Your task to perform on an android device: turn off picture-in-picture Image 0: 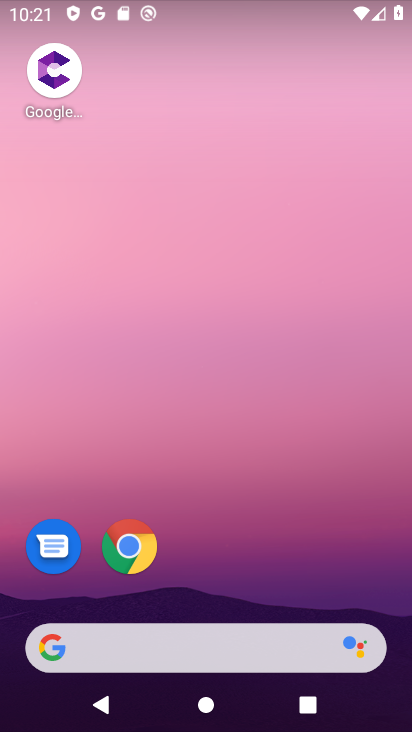
Step 0: drag from (281, 561) to (184, 49)
Your task to perform on an android device: turn off picture-in-picture Image 1: 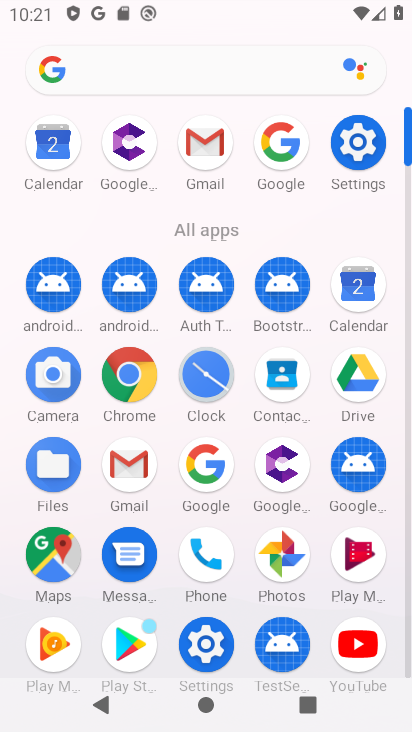
Step 1: drag from (23, 515) to (0, 316)
Your task to perform on an android device: turn off picture-in-picture Image 2: 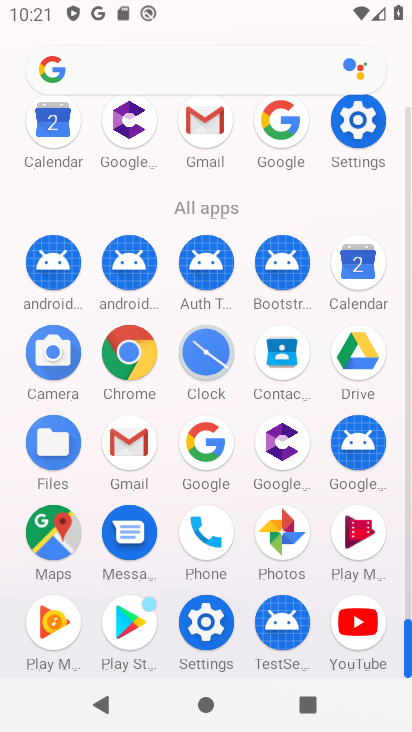
Step 2: click (207, 620)
Your task to perform on an android device: turn off picture-in-picture Image 3: 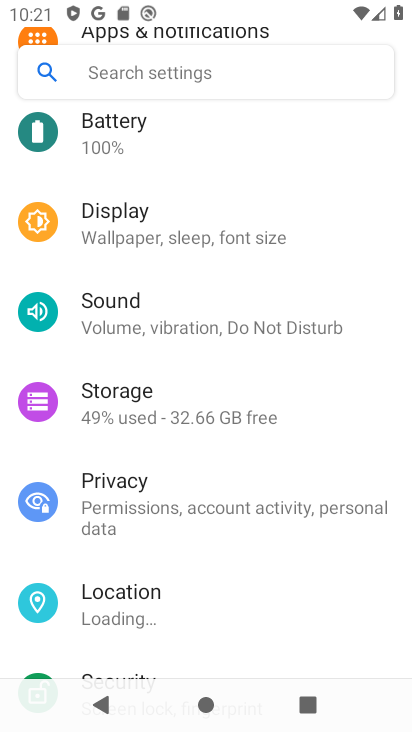
Step 3: drag from (261, 191) to (254, 585)
Your task to perform on an android device: turn off picture-in-picture Image 4: 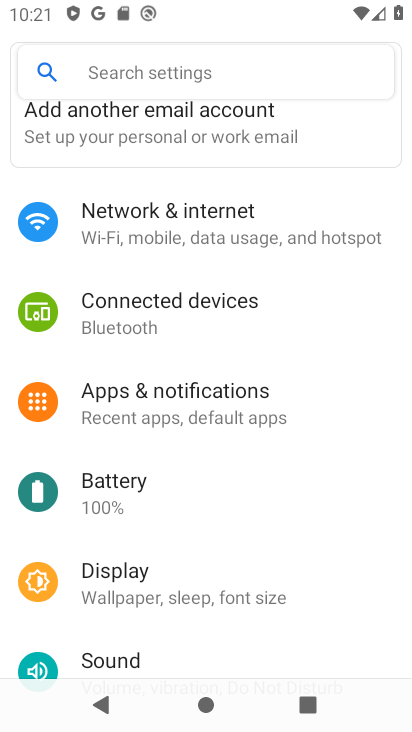
Step 4: drag from (257, 594) to (263, 204)
Your task to perform on an android device: turn off picture-in-picture Image 5: 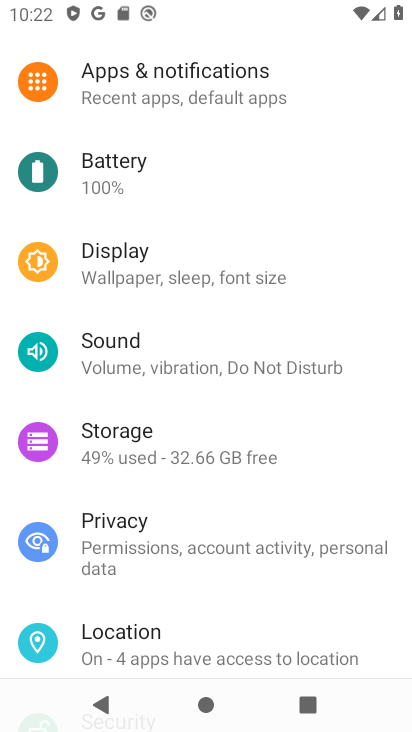
Step 5: drag from (233, 590) to (247, 201)
Your task to perform on an android device: turn off picture-in-picture Image 6: 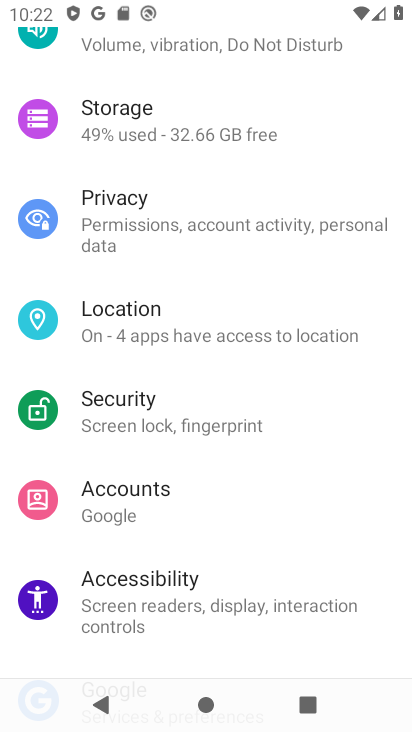
Step 6: drag from (224, 171) to (236, 533)
Your task to perform on an android device: turn off picture-in-picture Image 7: 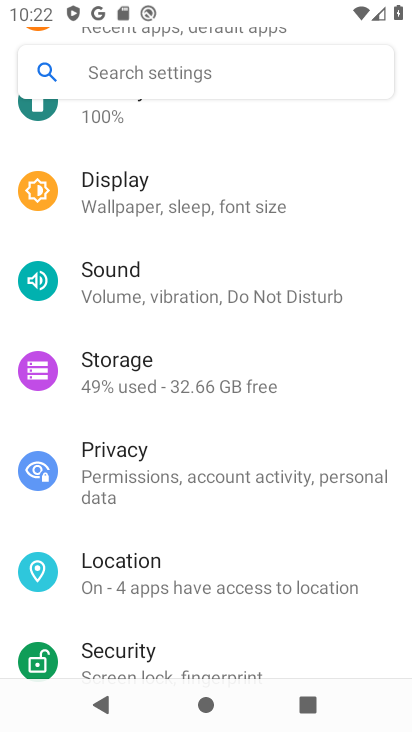
Step 7: drag from (245, 228) to (252, 575)
Your task to perform on an android device: turn off picture-in-picture Image 8: 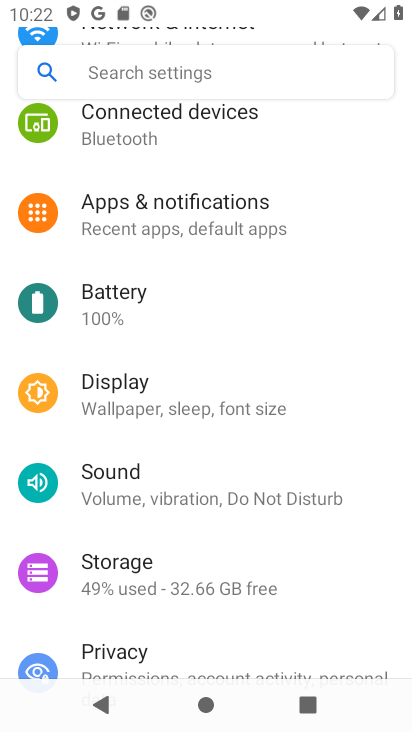
Step 8: drag from (277, 166) to (277, 485)
Your task to perform on an android device: turn off picture-in-picture Image 9: 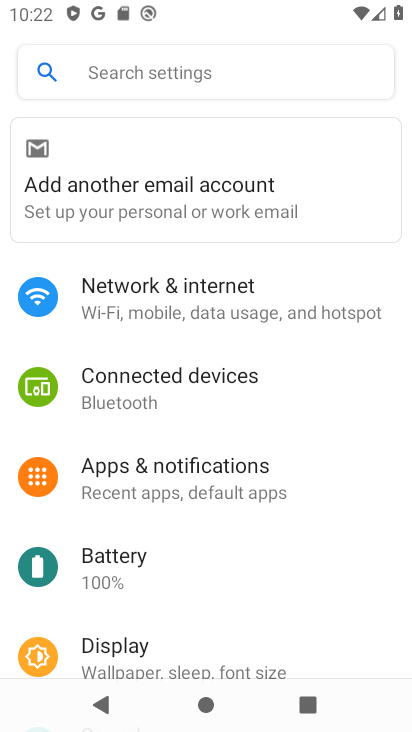
Step 9: click (216, 472)
Your task to perform on an android device: turn off picture-in-picture Image 10: 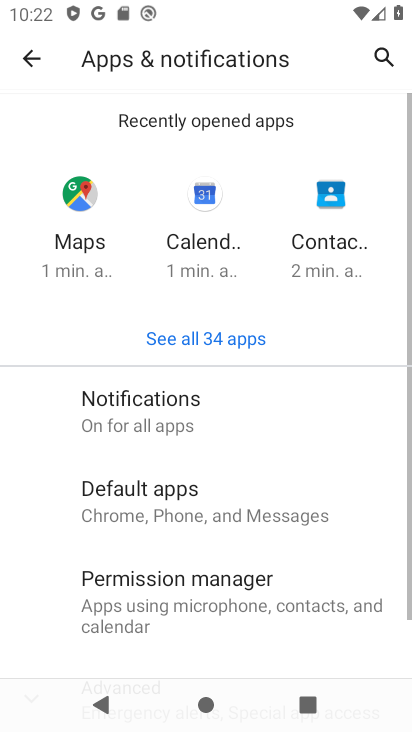
Step 10: drag from (49, 643) to (56, 328)
Your task to perform on an android device: turn off picture-in-picture Image 11: 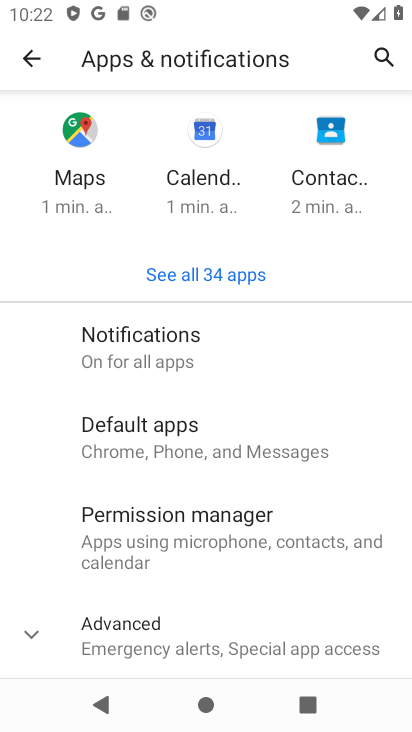
Step 11: click (40, 635)
Your task to perform on an android device: turn off picture-in-picture Image 12: 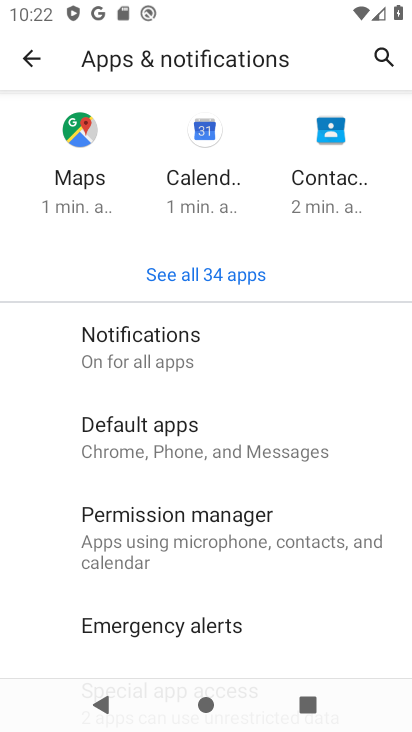
Step 12: drag from (270, 591) to (285, 255)
Your task to perform on an android device: turn off picture-in-picture Image 13: 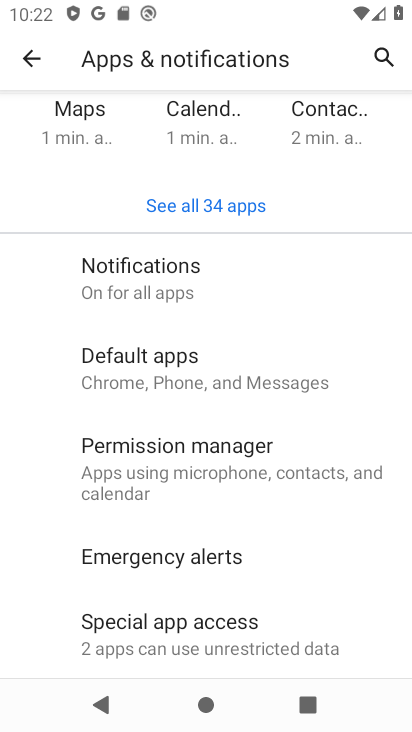
Step 13: click (228, 615)
Your task to perform on an android device: turn off picture-in-picture Image 14: 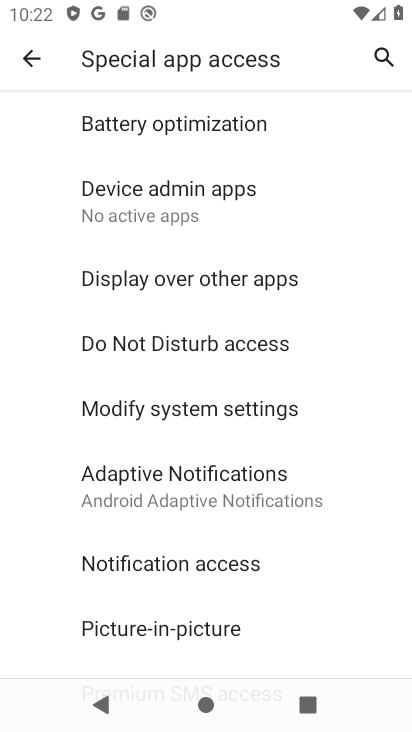
Step 14: click (205, 619)
Your task to perform on an android device: turn off picture-in-picture Image 15: 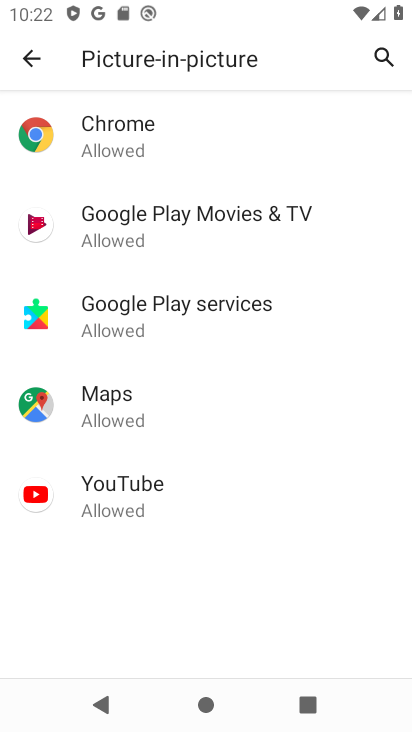
Step 15: click (182, 151)
Your task to perform on an android device: turn off picture-in-picture Image 16: 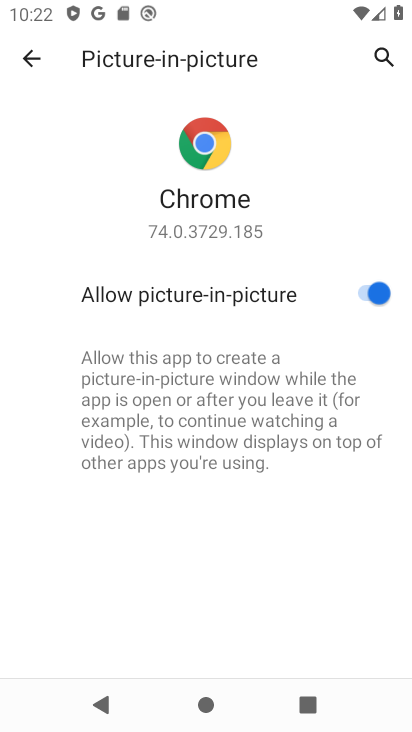
Step 16: click (360, 292)
Your task to perform on an android device: turn off picture-in-picture Image 17: 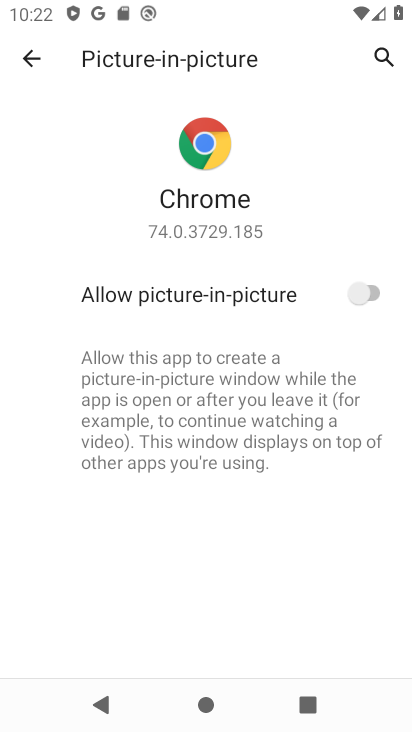
Step 17: click (32, 60)
Your task to perform on an android device: turn off picture-in-picture Image 18: 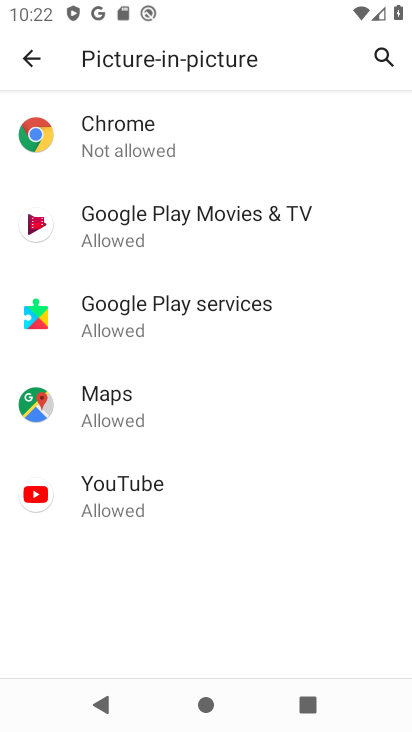
Step 18: click (156, 238)
Your task to perform on an android device: turn off picture-in-picture Image 19: 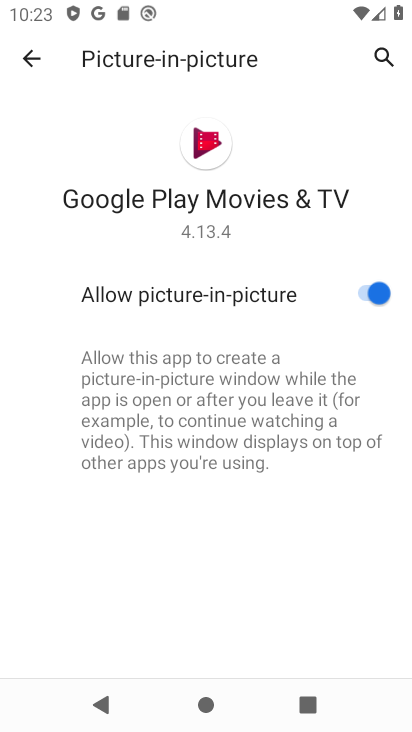
Step 19: click (360, 289)
Your task to perform on an android device: turn off picture-in-picture Image 20: 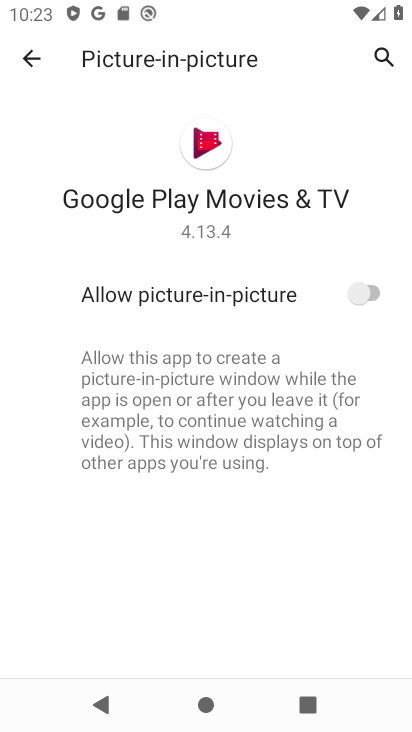
Step 20: click (34, 61)
Your task to perform on an android device: turn off picture-in-picture Image 21: 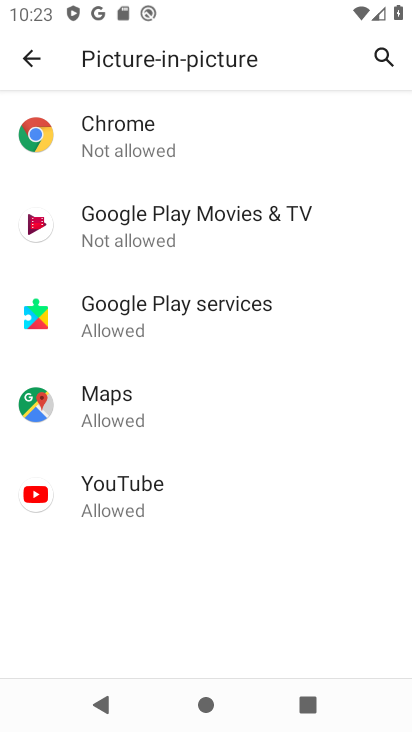
Step 21: click (124, 322)
Your task to perform on an android device: turn off picture-in-picture Image 22: 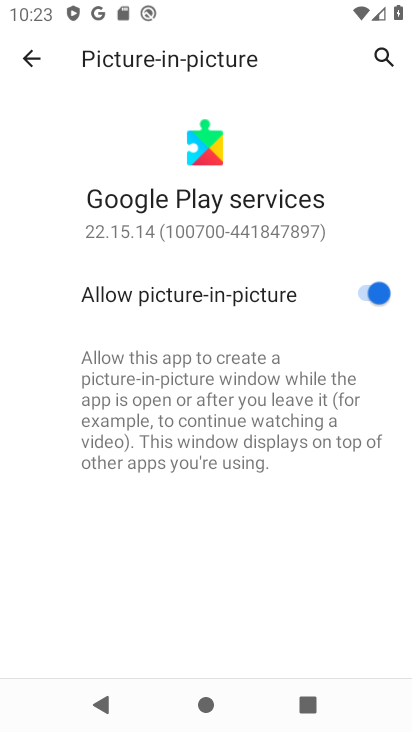
Step 22: click (365, 283)
Your task to perform on an android device: turn off picture-in-picture Image 23: 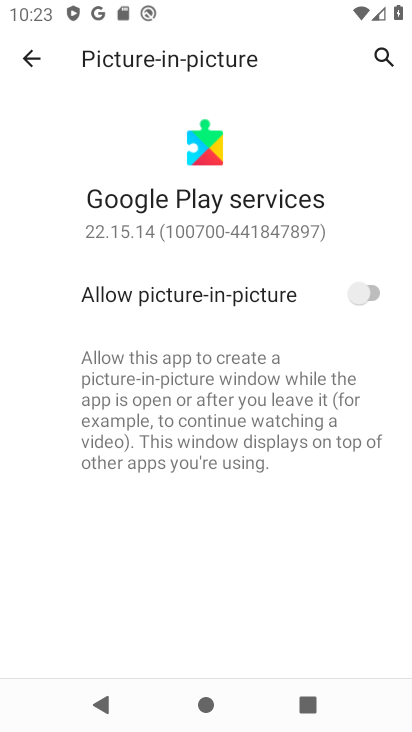
Step 23: click (32, 55)
Your task to perform on an android device: turn off picture-in-picture Image 24: 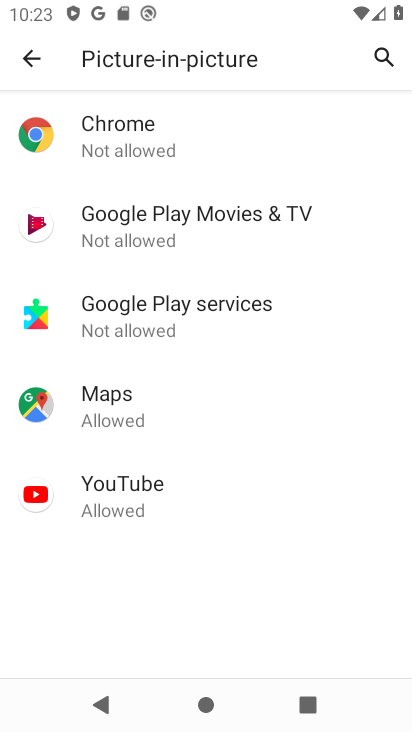
Step 24: click (131, 412)
Your task to perform on an android device: turn off picture-in-picture Image 25: 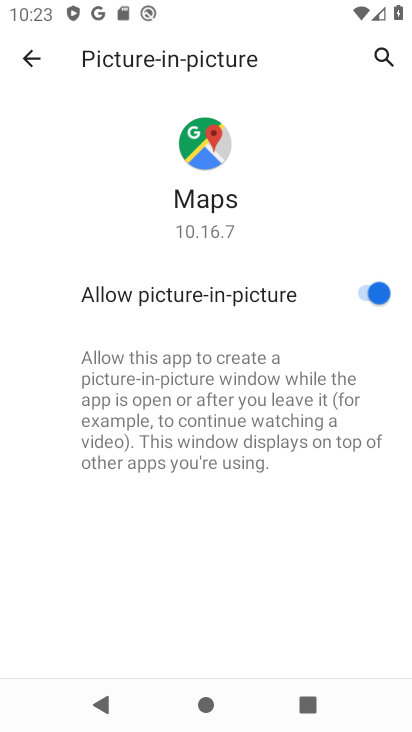
Step 25: click (368, 295)
Your task to perform on an android device: turn off picture-in-picture Image 26: 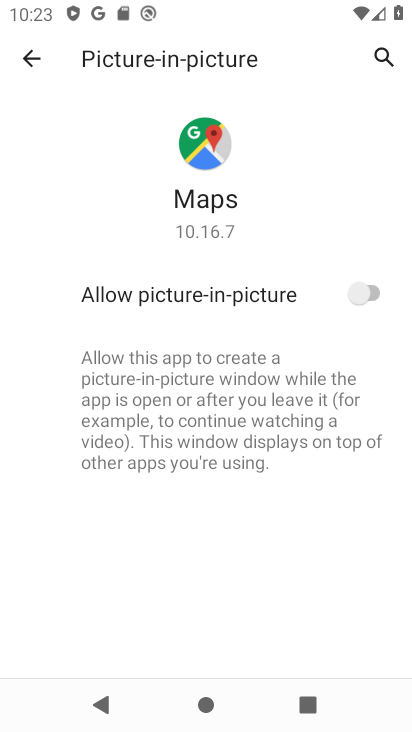
Step 26: click (39, 57)
Your task to perform on an android device: turn off picture-in-picture Image 27: 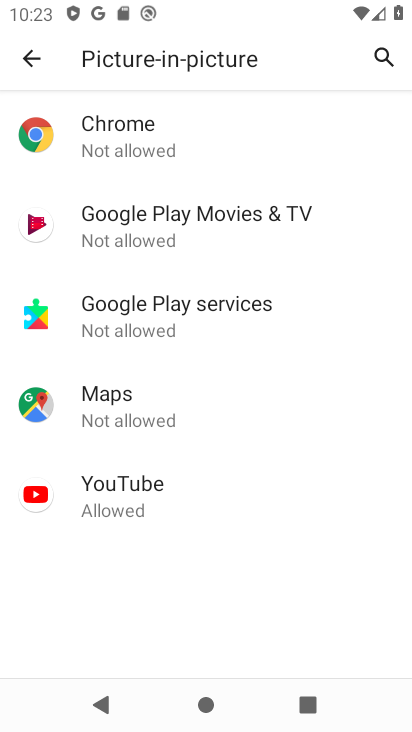
Step 27: click (119, 497)
Your task to perform on an android device: turn off picture-in-picture Image 28: 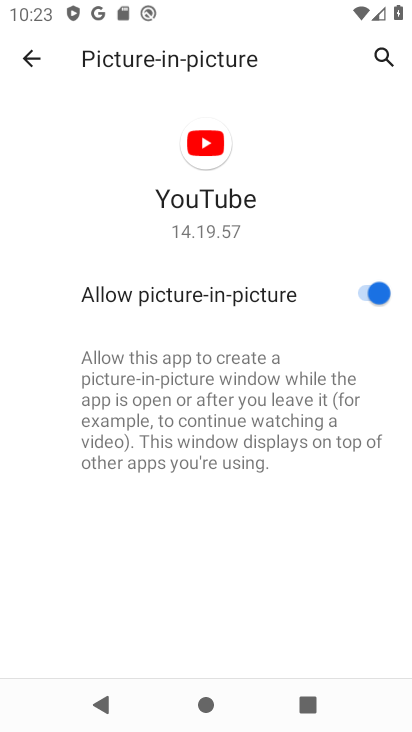
Step 28: click (357, 302)
Your task to perform on an android device: turn off picture-in-picture Image 29: 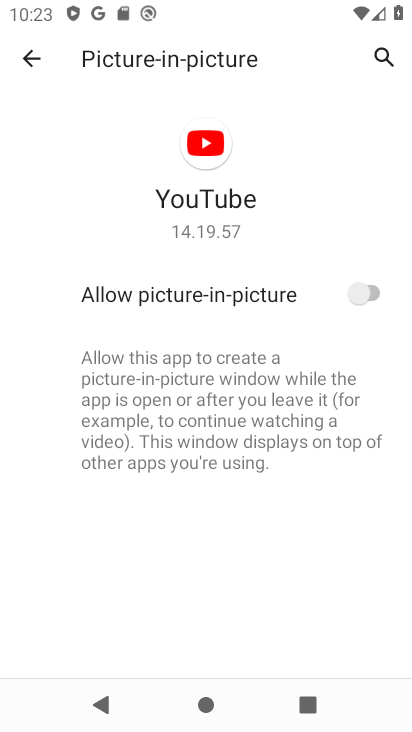
Step 29: click (32, 54)
Your task to perform on an android device: turn off picture-in-picture Image 30: 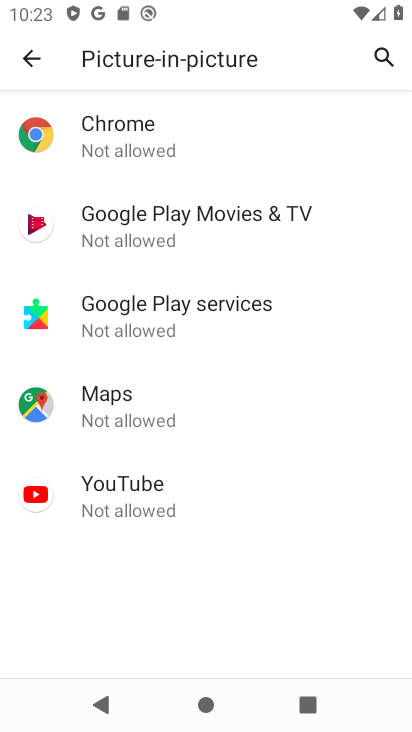
Step 30: task complete